Your task to perform on an android device: Search for pizza restaurants on Maps Image 0: 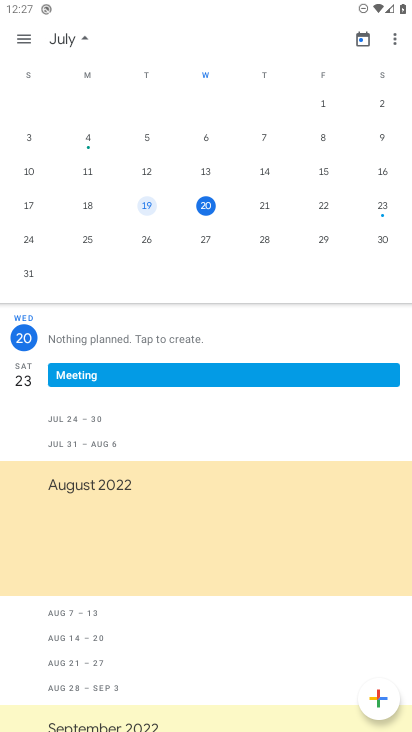
Step 0: press home button
Your task to perform on an android device: Search for pizza restaurants on Maps Image 1: 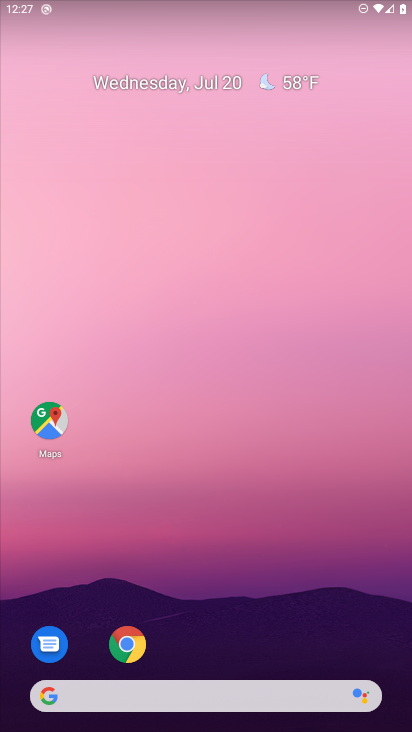
Step 1: click (53, 435)
Your task to perform on an android device: Search for pizza restaurants on Maps Image 2: 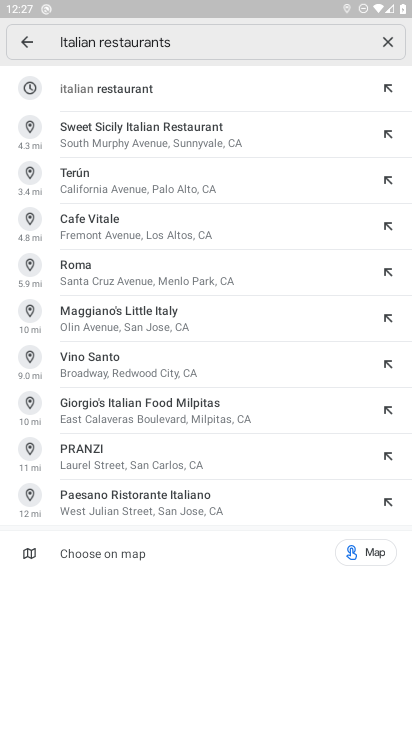
Step 2: click (28, 39)
Your task to perform on an android device: Search for pizza restaurants on Maps Image 3: 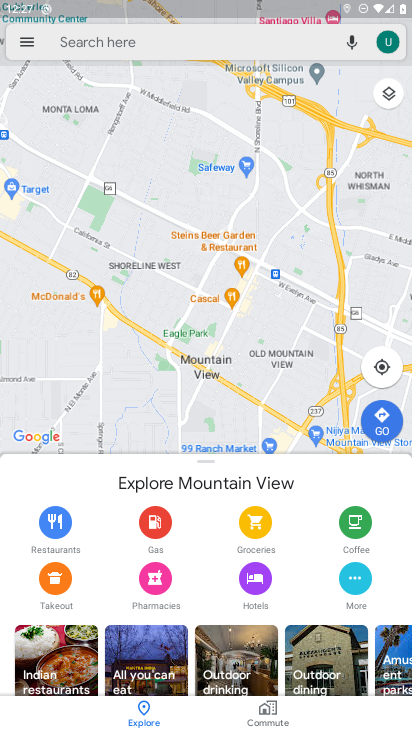
Step 3: click (58, 33)
Your task to perform on an android device: Search for pizza restaurants on Maps Image 4: 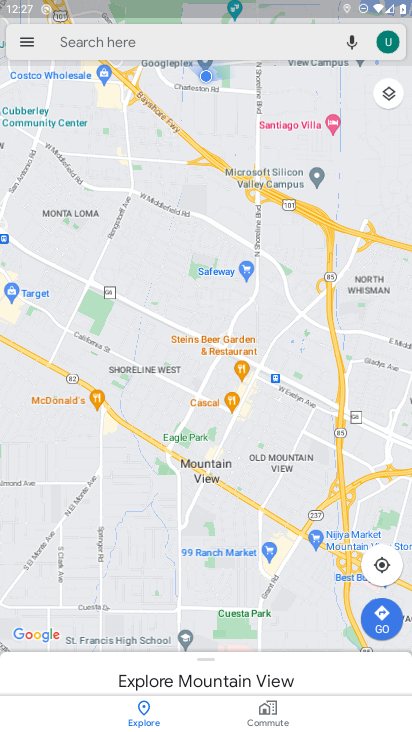
Step 4: click (60, 49)
Your task to perform on an android device: Search for pizza restaurants on Maps Image 5: 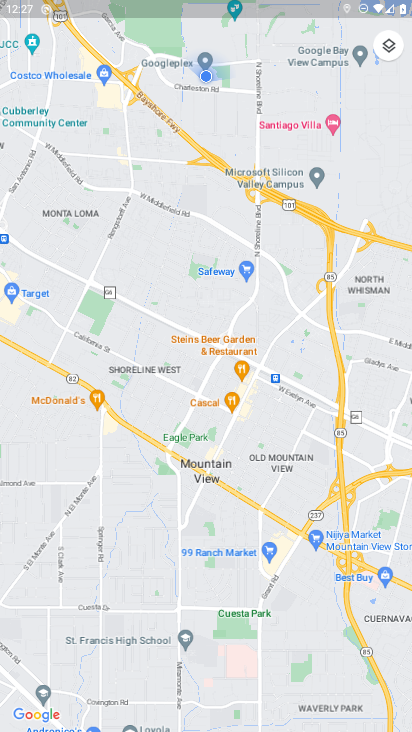
Step 5: click (189, 98)
Your task to perform on an android device: Search for pizza restaurants on Maps Image 6: 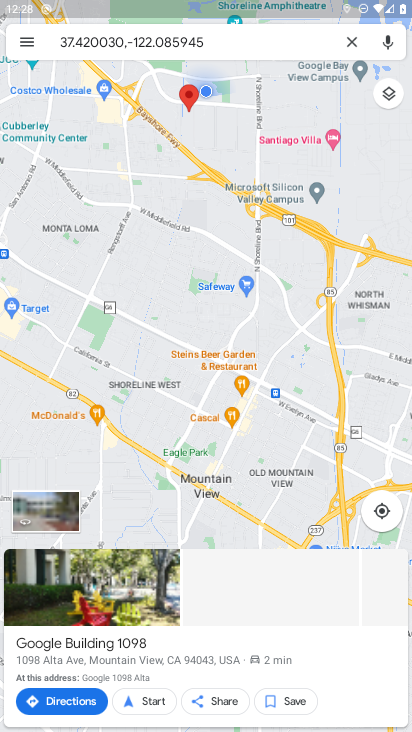
Step 6: click (356, 49)
Your task to perform on an android device: Search for pizza restaurants on Maps Image 7: 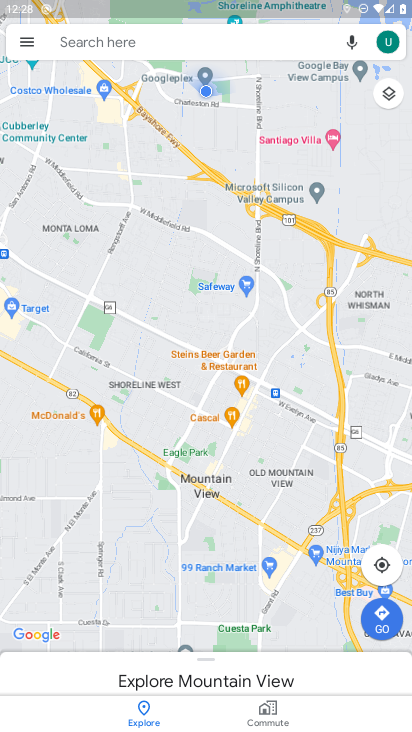
Step 7: click (70, 37)
Your task to perform on an android device: Search for pizza restaurants on Maps Image 8: 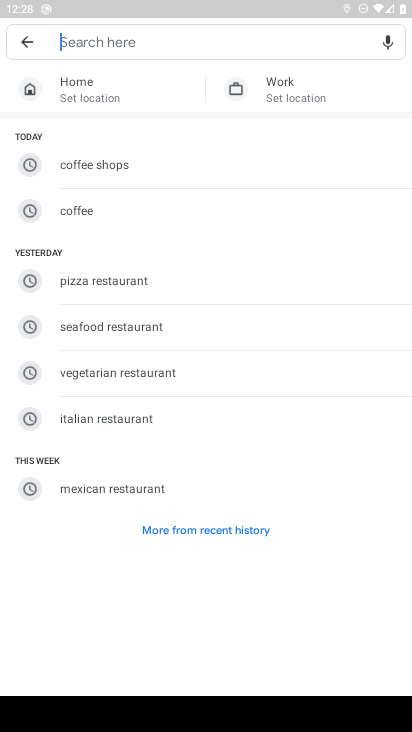
Step 8: type " pizza restaurants"
Your task to perform on an android device: Search for pizza restaurants on Maps Image 9: 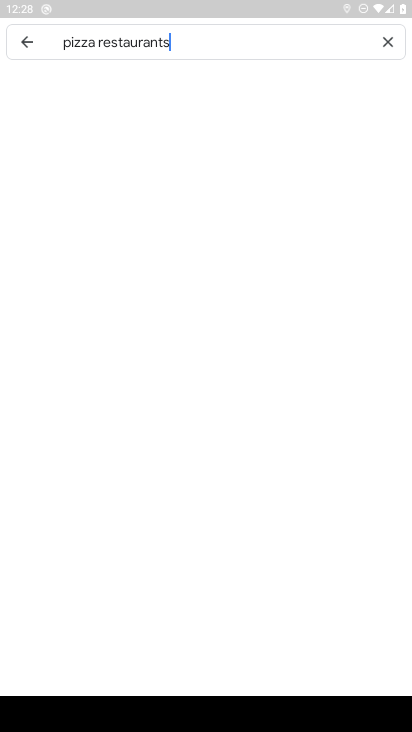
Step 9: type ""
Your task to perform on an android device: Search for pizza restaurants on Maps Image 10: 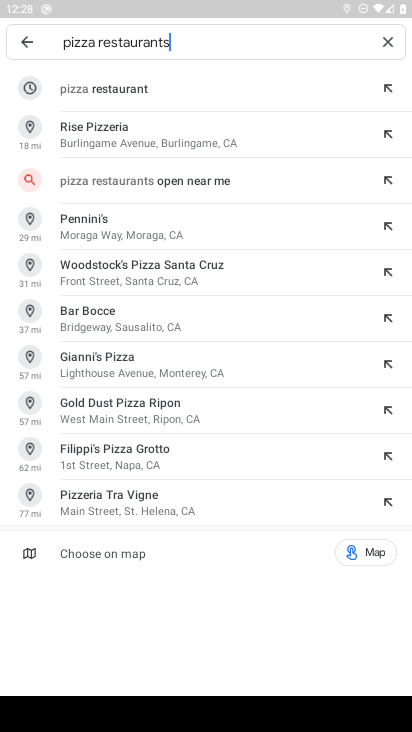
Step 10: type ""
Your task to perform on an android device: Search for pizza restaurants on Maps Image 11: 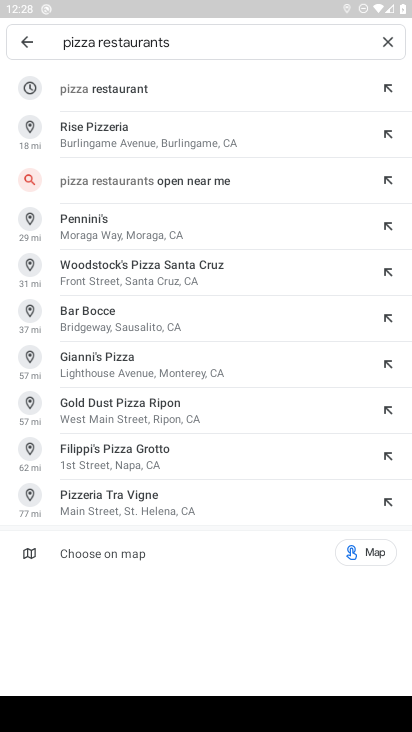
Step 11: type ""
Your task to perform on an android device: Search for pizza restaurants on Maps Image 12: 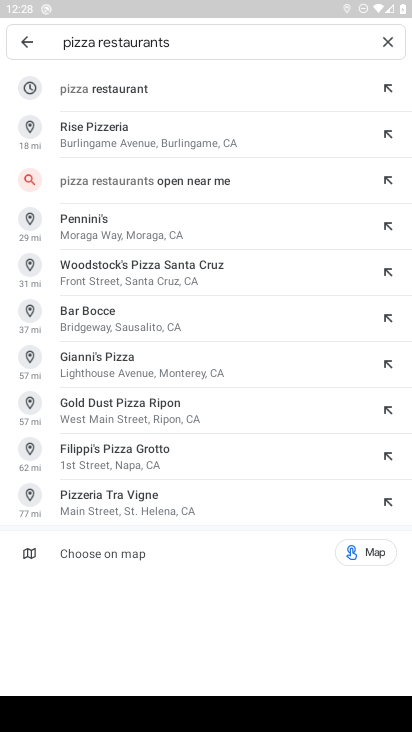
Step 12: task complete